Your task to perform on an android device: Do I have any events this weekend? Image 0: 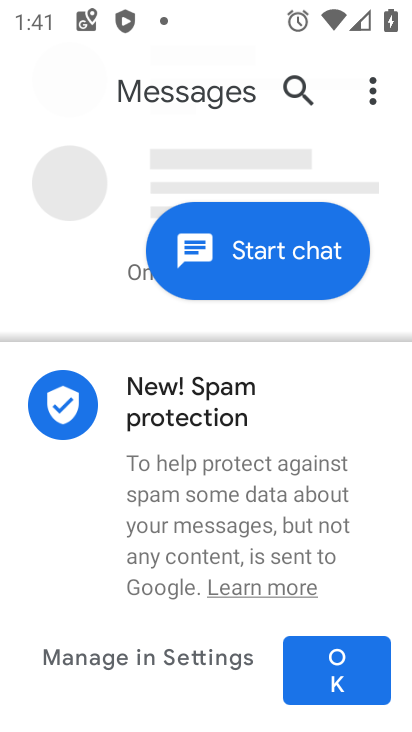
Step 0: press home button
Your task to perform on an android device: Do I have any events this weekend? Image 1: 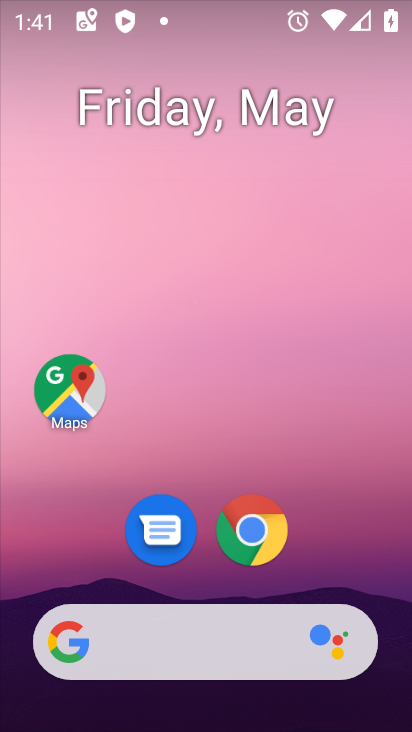
Step 1: drag from (323, 559) to (225, 88)
Your task to perform on an android device: Do I have any events this weekend? Image 2: 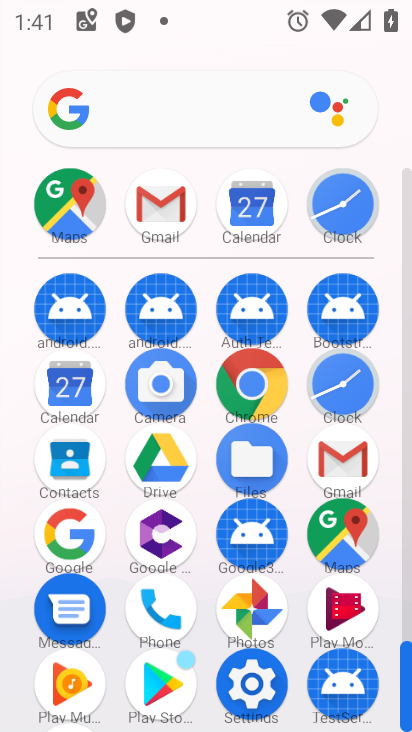
Step 2: click (78, 374)
Your task to perform on an android device: Do I have any events this weekend? Image 3: 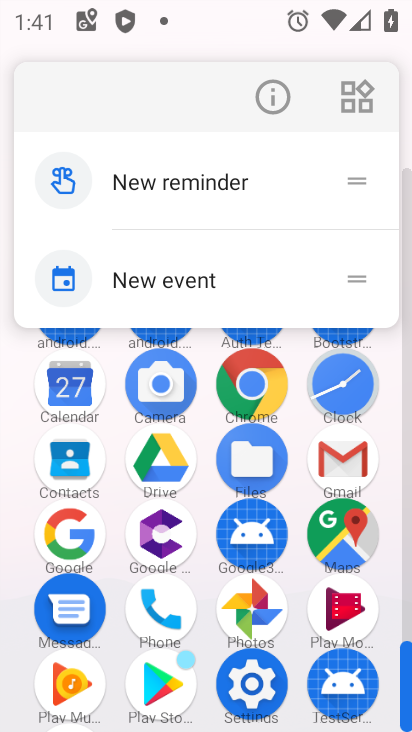
Step 3: click (63, 395)
Your task to perform on an android device: Do I have any events this weekend? Image 4: 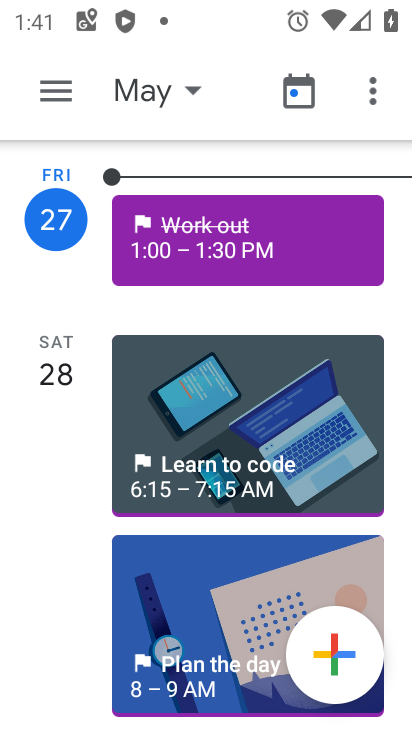
Step 4: click (139, 104)
Your task to perform on an android device: Do I have any events this weekend? Image 5: 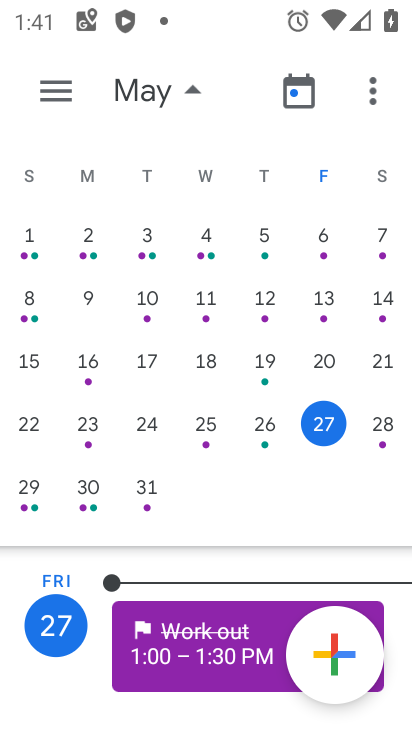
Step 5: click (385, 420)
Your task to perform on an android device: Do I have any events this weekend? Image 6: 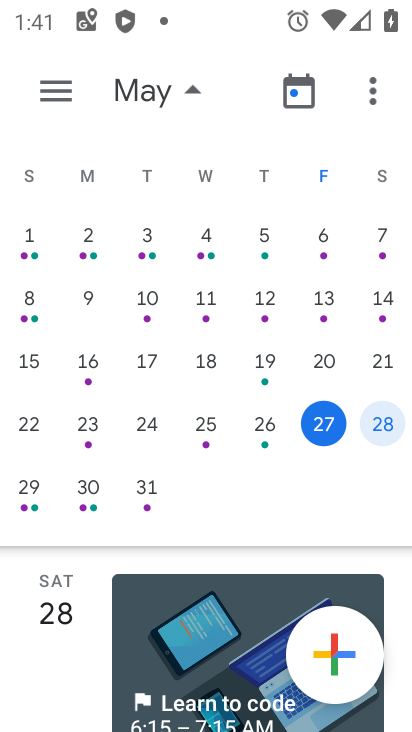
Step 6: task complete